Your task to perform on an android device: Turn on the flashlight Image 0: 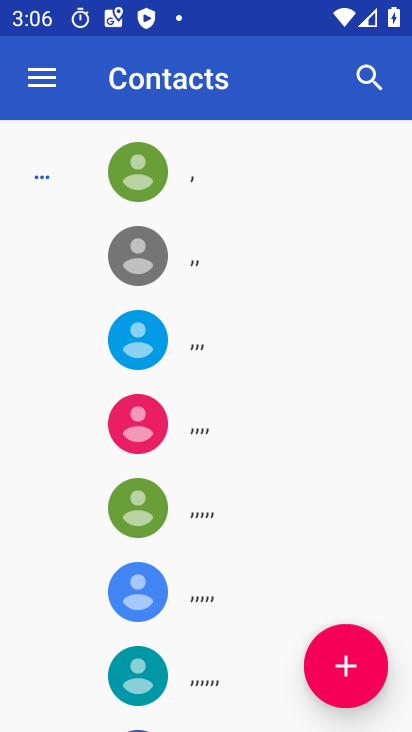
Step 0: press home button
Your task to perform on an android device: Turn on the flashlight Image 1: 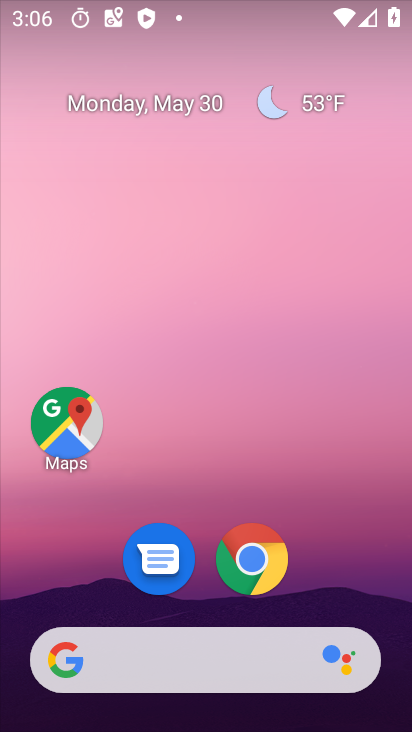
Step 1: drag from (241, 575) to (230, 253)
Your task to perform on an android device: Turn on the flashlight Image 2: 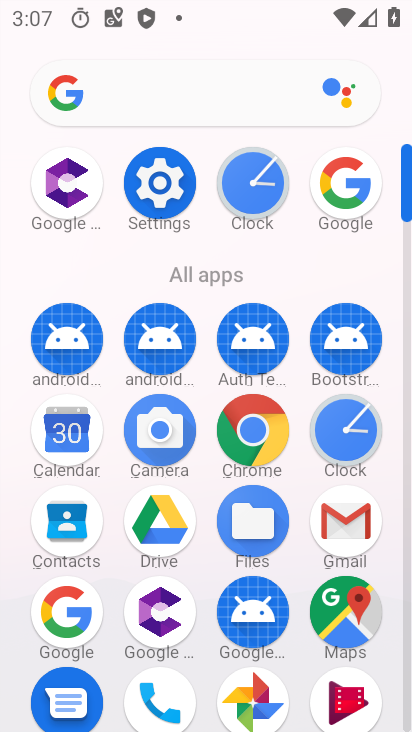
Step 2: drag from (282, 6) to (354, 495)
Your task to perform on an android device: Turn on the flashlight Image 3: 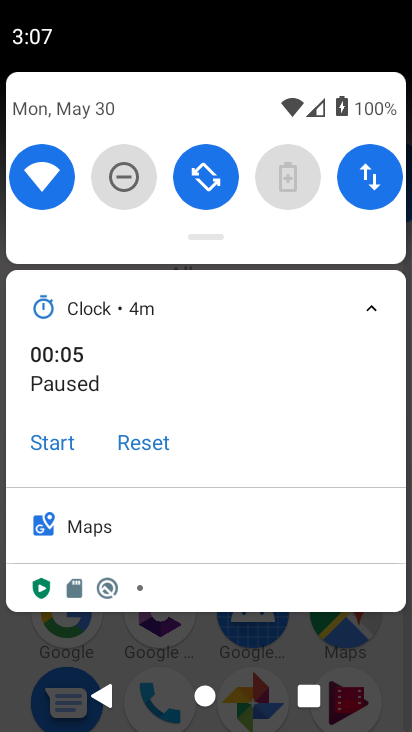
Step 3: drag from (211, 14) to (221, 458)
Your task to perform on an android device: Turn on the flashlight Image 4: 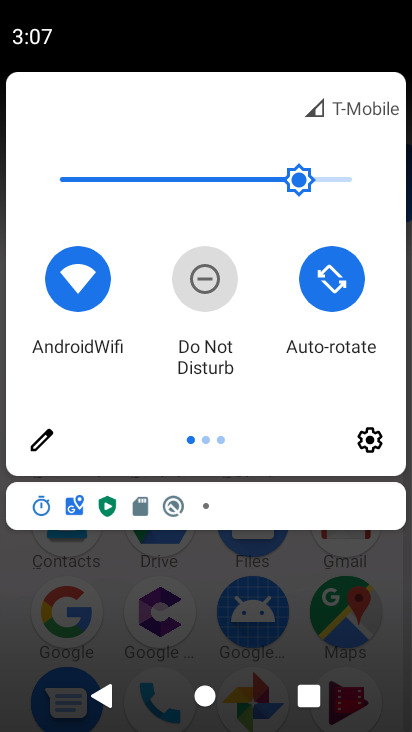
Step 4: drag from (335, 396) to (17, 412)
Your task to perform on an android device: Turn on the flashlight Image 5: 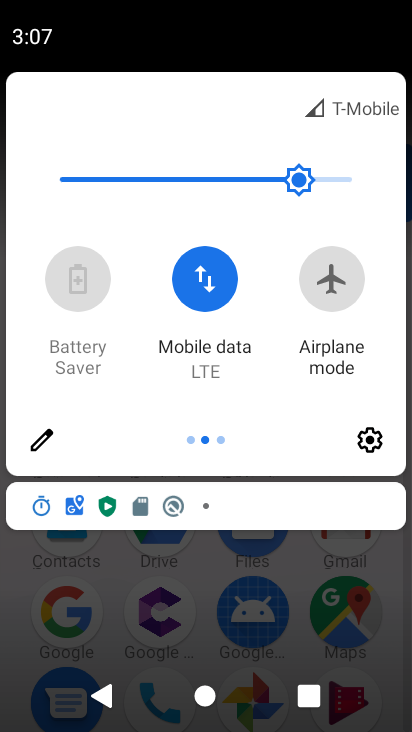
Step 5: drag from (368, 347) to (11, 456)
Your task to perform on an android device: Turn on the flashlight Image 6: 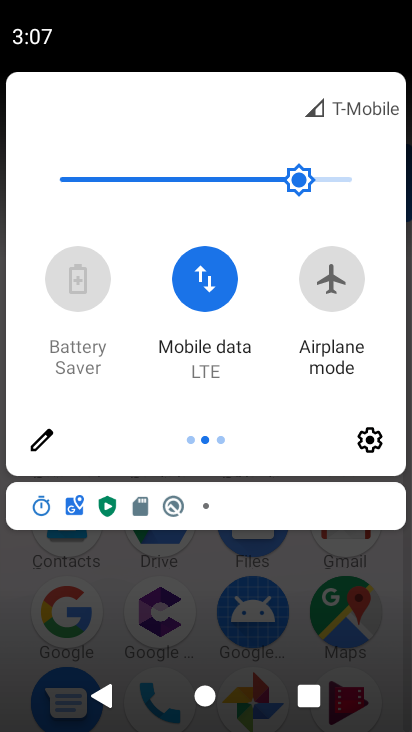
Step 6: drag from (362, 373) to (2, 371)
Your task to perform on an android device: Turn on the flashlight Image 7: 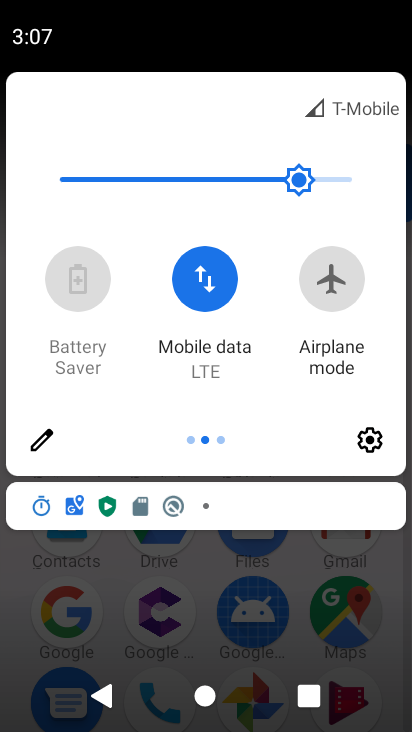
Step 7: drag from (377, 375) to (3, 411)
Your task to perform on an android device: Turn on the flashlight Image 8: 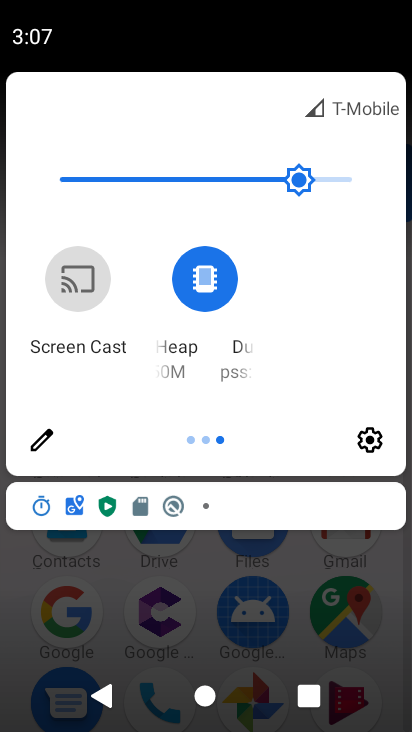
Step 8: click (57, 439)
Your task to perform on an android device: Turn on the flashlight Image 9: 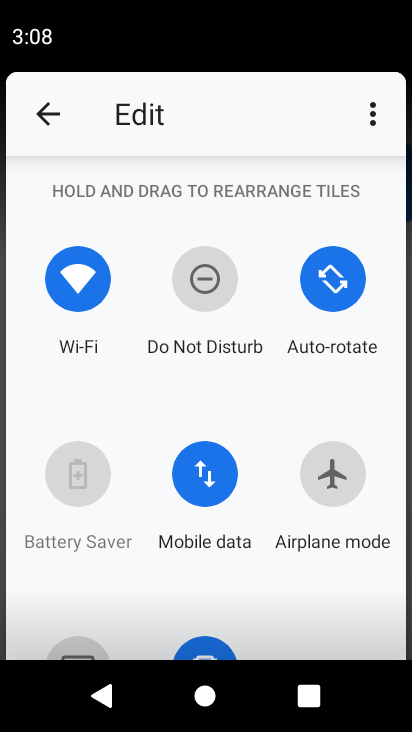
Step 9: task complete